Your task to perform on an android device: Check the weather Image 0: 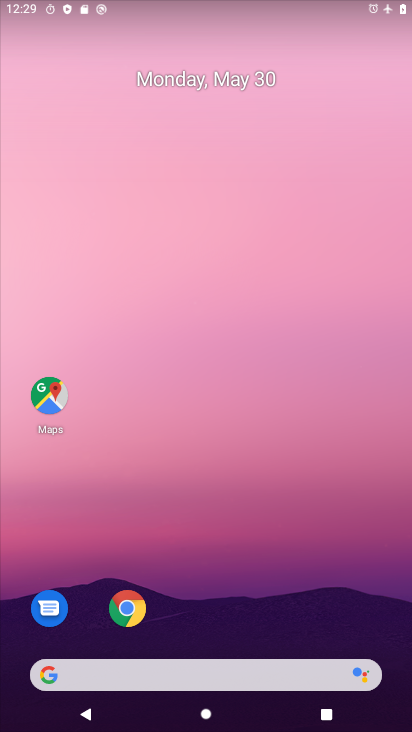
Step 0: click (242, 660)
Your task to perform on an android device: Check the weather Image 1: 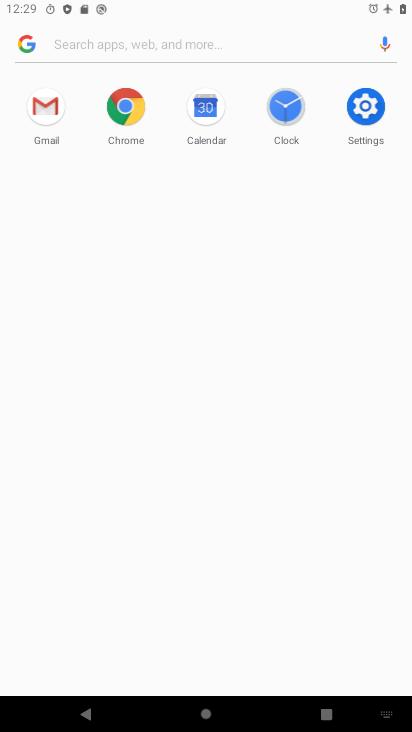
Step 1: task complete